Your task to perform on an android device: check android version Image 0: 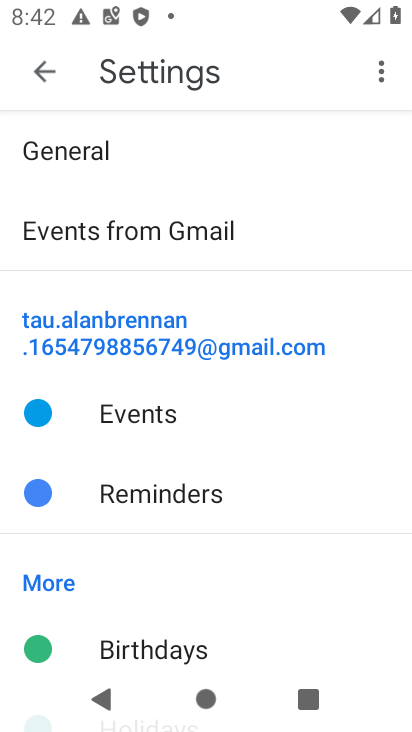
Step 0: press home button
Your task to perform on an android device: check android version Image 1: 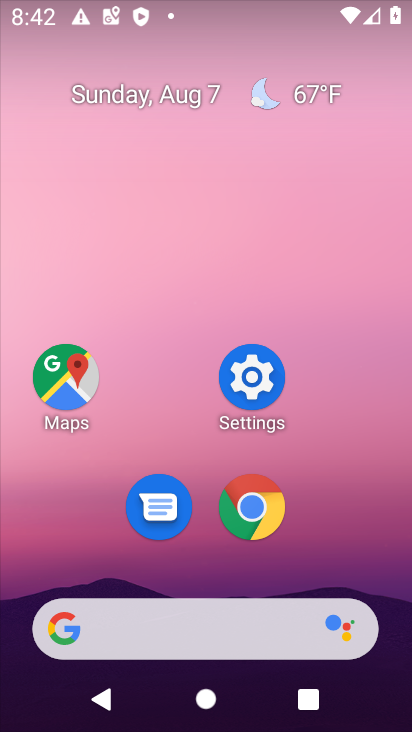
Step 1: drag from (166, 629) to (289, 256)
Your task to perform on an android device: check android version Image 2: 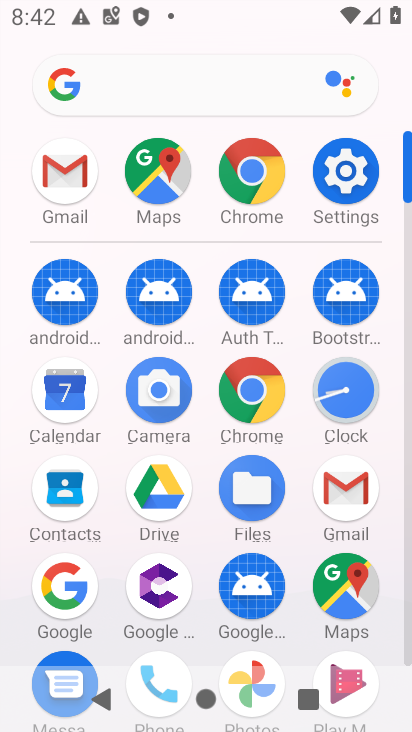
Step 2: click (354, 163)
Your task to perform on an android device: check android version Image 3: 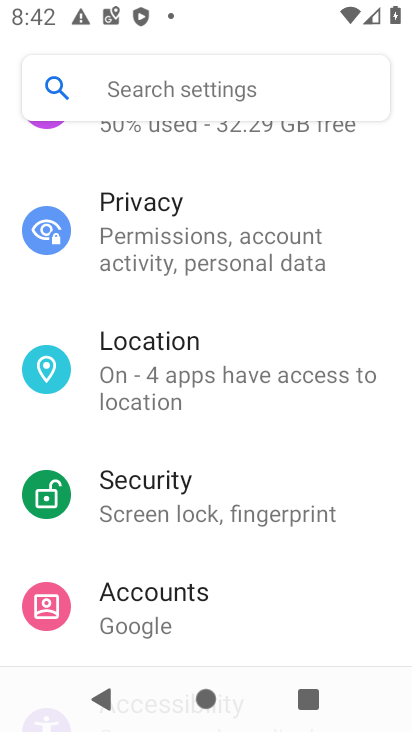
Step 3: drag from (292, 622) to (411, 61)
Your task to perform on an android device: check android version Image 4: 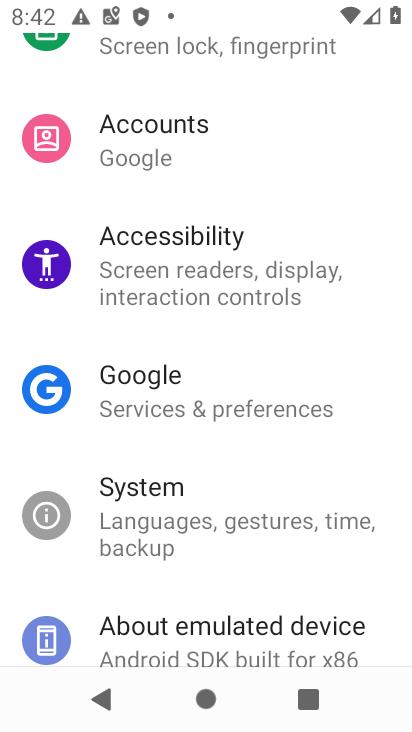
Step 4: drag from (251, 566) to (354, 111)
Your task to perform on an android device: check android version Image 5: 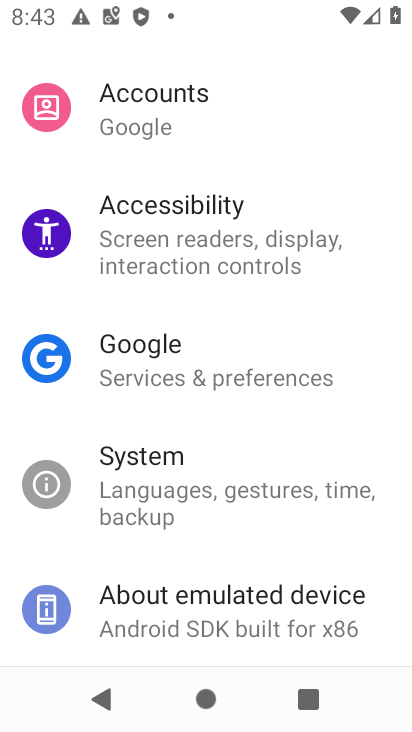
Step 5: click (183, 604)
Your task to perform on an android device: check android version Image 6: 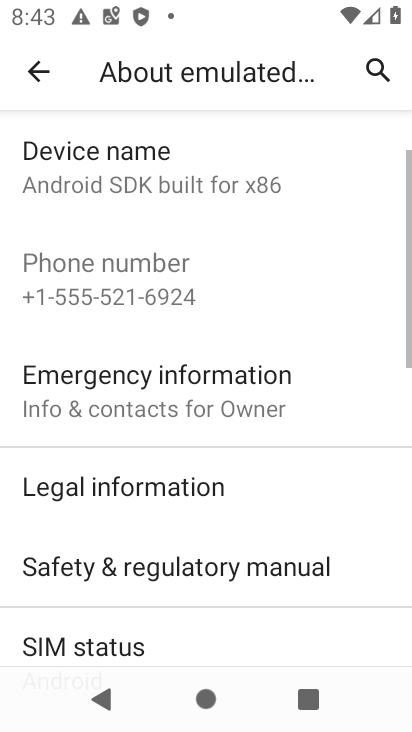
Step 6: drag from (212, 635) to (358, 49)
Your task to perform on an android device: check android version Image 7: 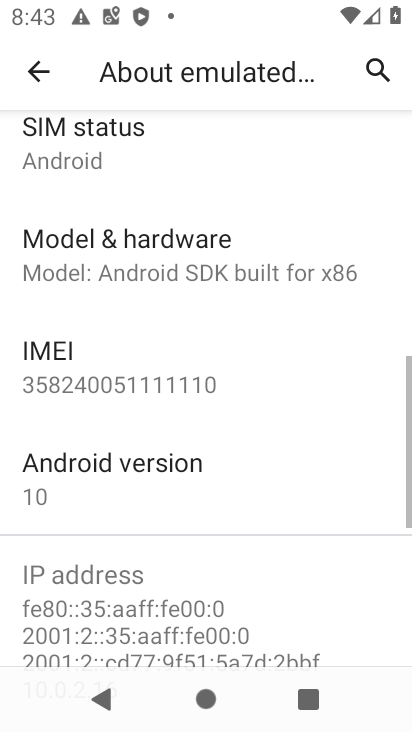
Step 7: click (92, 468)
Your task to perform on an android device: check android version Image 8: 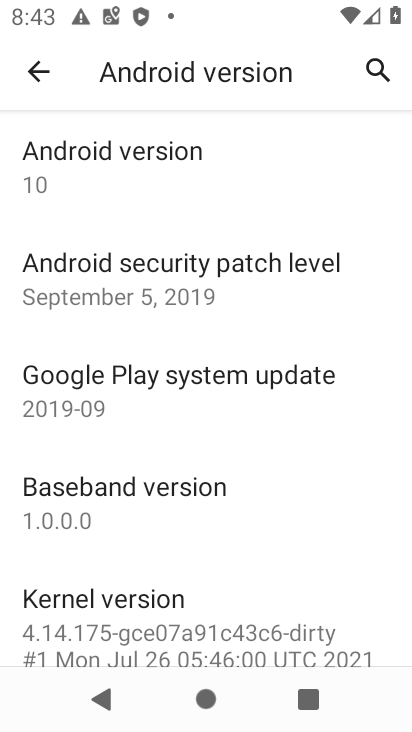
Step 8: task complete